Your task to perform on an android device: Open internet settings Image 0: 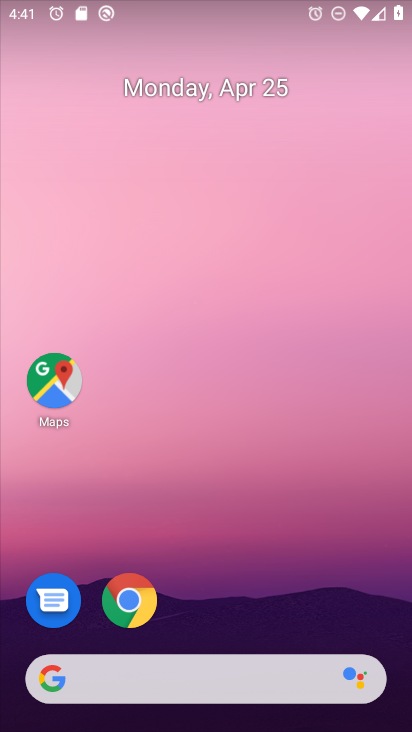
Step 0: drag from (236, 543) to (186, 79)
Your task to perform on an android device: Open internet settings Image 1: 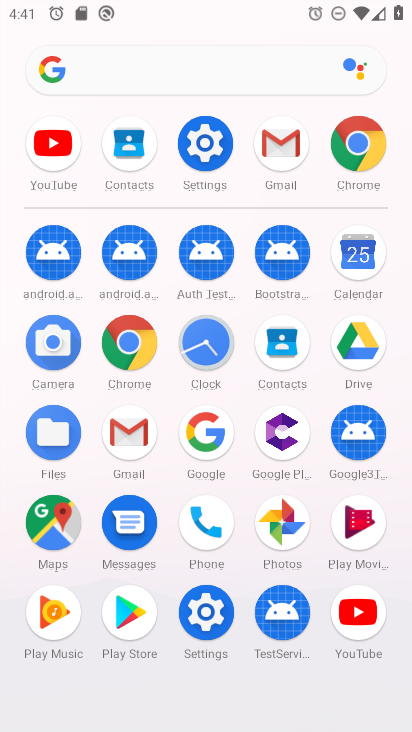
Step 1: click (206, 141)
Your task to perform on an android device: Open internet settings Image 2: 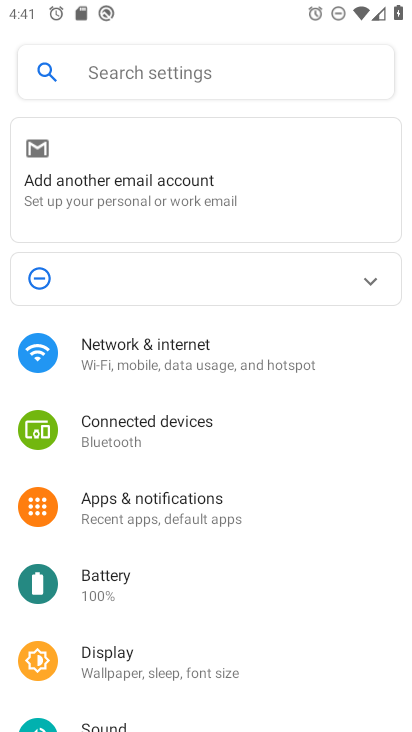
Step 2: drag from (242, 579) to (276, 145)
Your task to perform on an android device: Open internet settings Image 3: 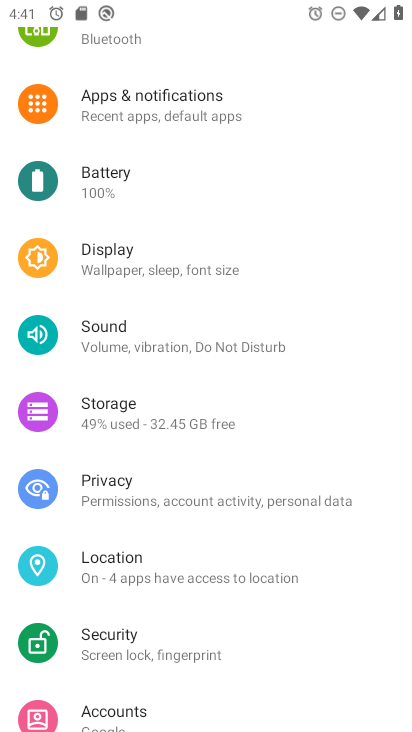
Step 3: drag from (225, 88) to (228, 566)
Your task to perform on an android device: Open internet settings Image 4: 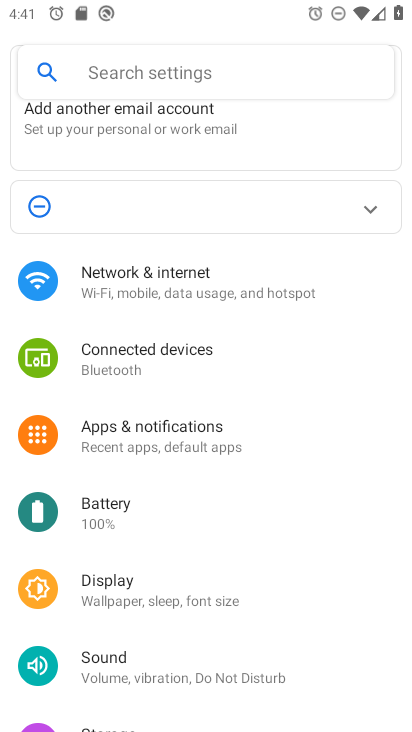
Step 4: click (175, 273)
Your task to perform on an android device: Open internet settings Image 5: 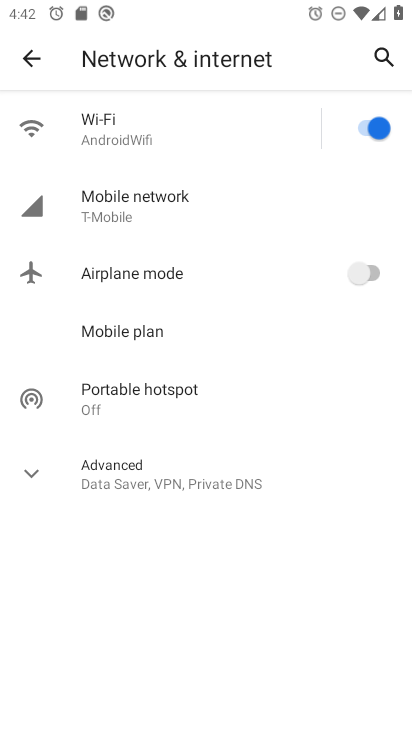
Step 5: click (27, 477)
Your task to perform on an android device: Open internet settings Image 6: 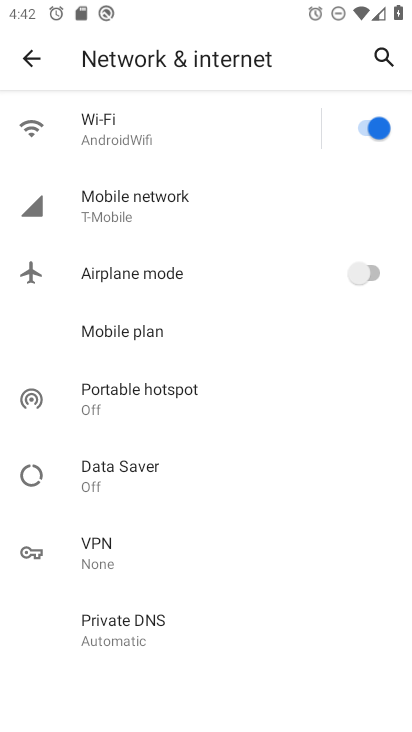
Step 6: task complete